Your task to perform on an android device: delete the emails in spam in the gmail app Image 0: 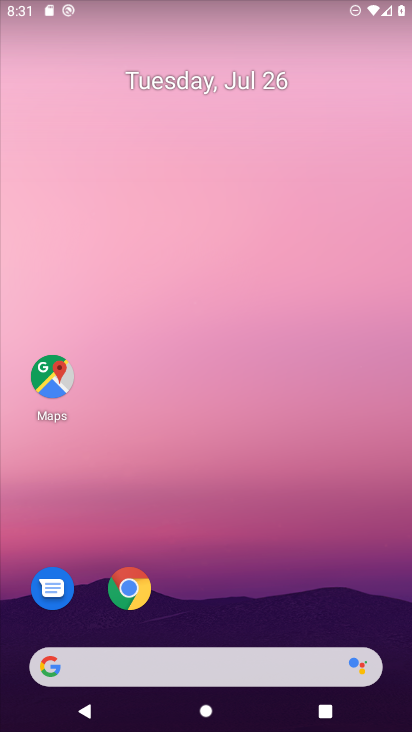
Step 0: drag from (229, 617) to (186, 6)
Your task to perform on an android device: delete the emails in spam in the gmail app Image 1: 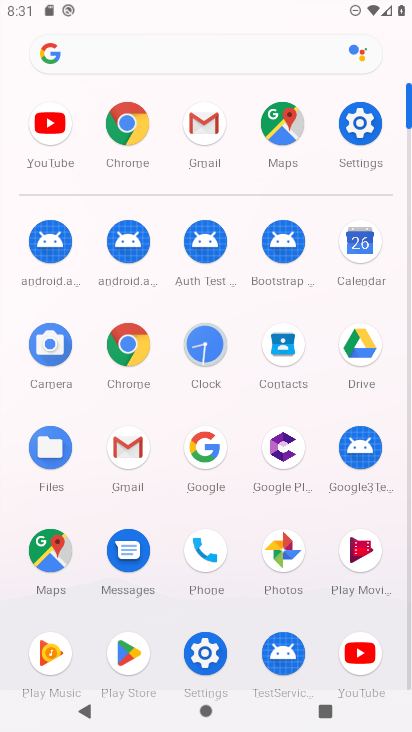
Step 1: click (204, 128)
Your task to perform on an android device: delete the emails in spam in the gmail app Image 2: 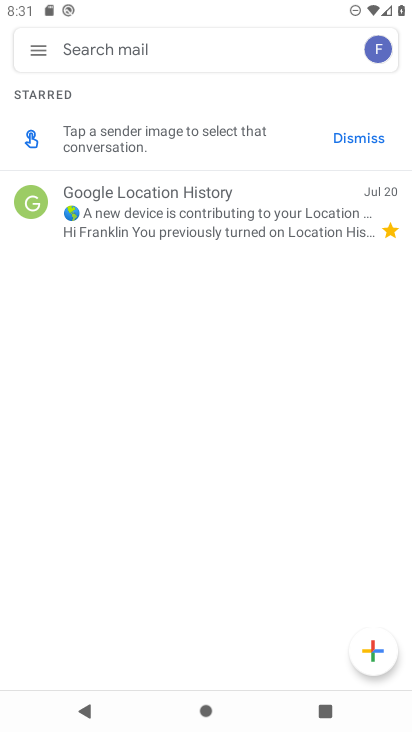
Step 2: click (40, 55)
Your task to perform on an android device: delete the emails in spam in the gmail app Image 3: 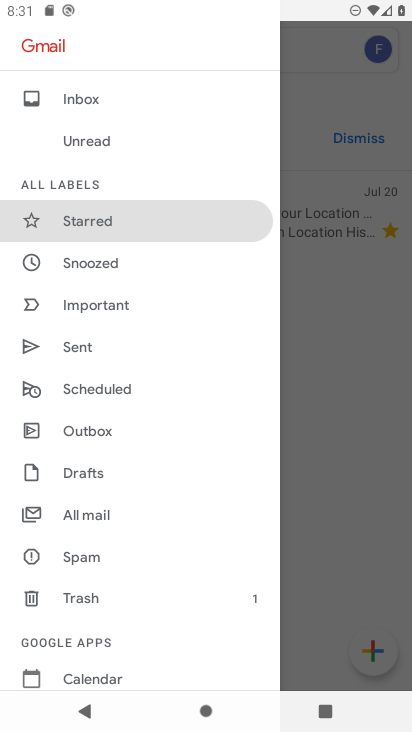
Step 3: click (93, 557)
Your task to perform on an android device: delete the emails in spam in the gmail app Image 4: 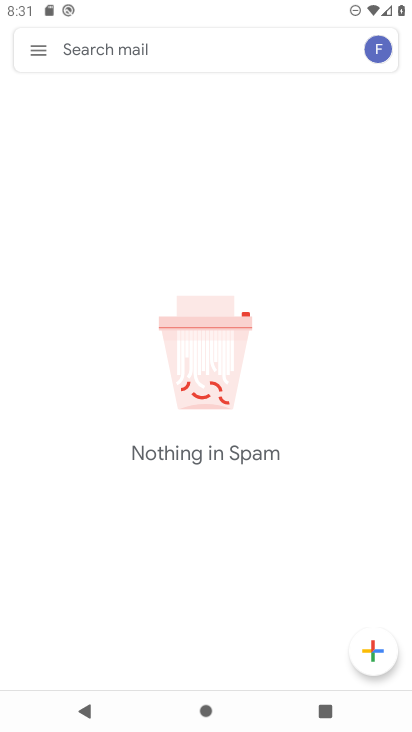
Step 4: task complete